Your task to perform on an android device: manage bookmarks in the chrome app Image 0: 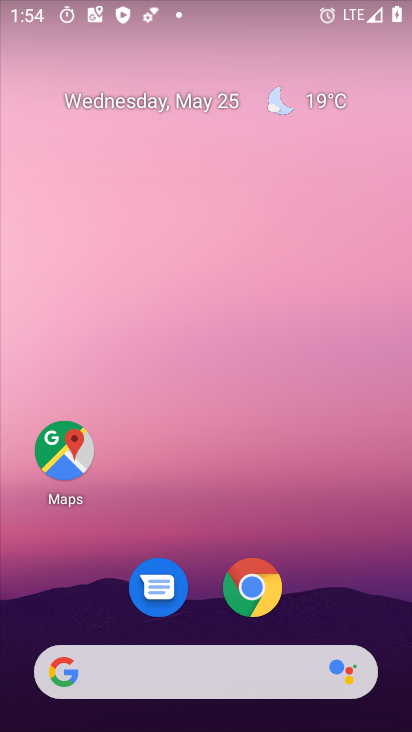
Step 0: click (248, 586)
Your task to perform on an android device: manage bookmarks in the chrome app Image 1: 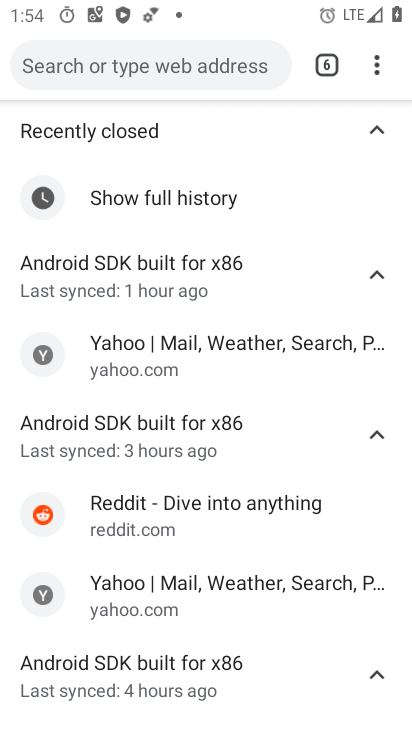
Step 1: click (376, 68)
Your task to perform on an android device: manage bookmarks in the chrome app Image 2: 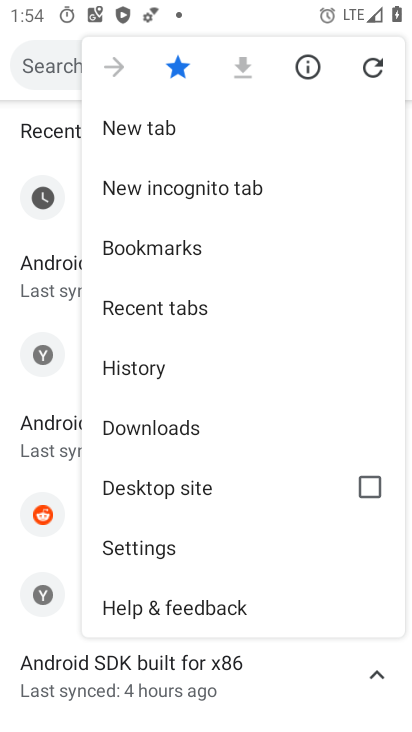
Step 2: click (154, 248)
Your task to perform on an android device: manage bookmarks in the chrome app Image 3: 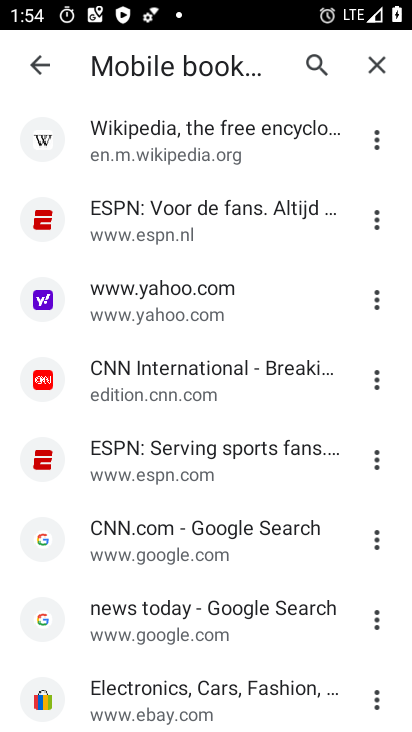
Step 3: click (377, 220)
Your task to perform on an android device: manage bookmarks in the chrome app Image 4: 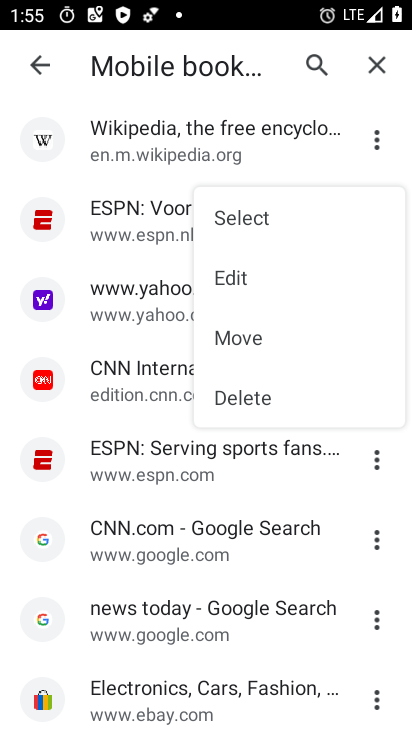
Step 4: click (235, 273)
Your task to perform on an android device: manage bookmarks in the chrome app Image 5: 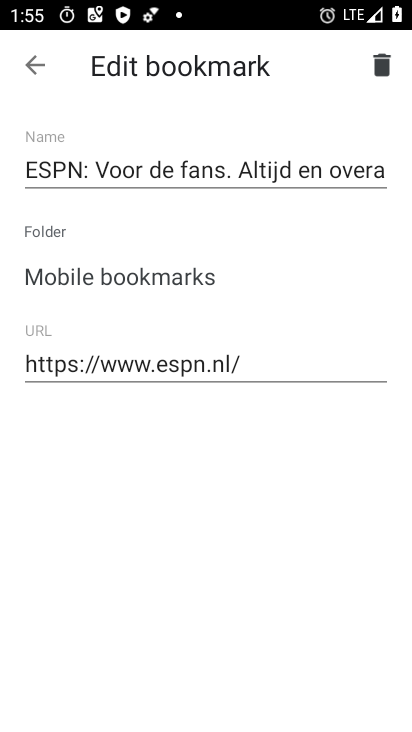
Step 5: click (203, 170)
Your task to perform on an android device: manage bookmarks in the chrome app Image 6: 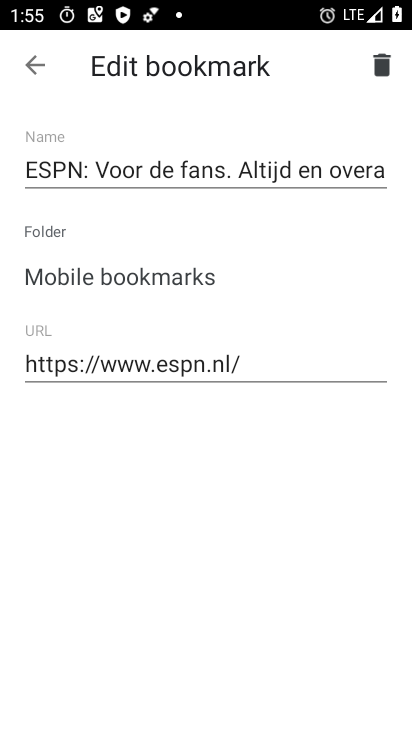
Step 6: click (203, 170)
Your task to perform on an android device: manage bookmarks in the chrome app Image 7: 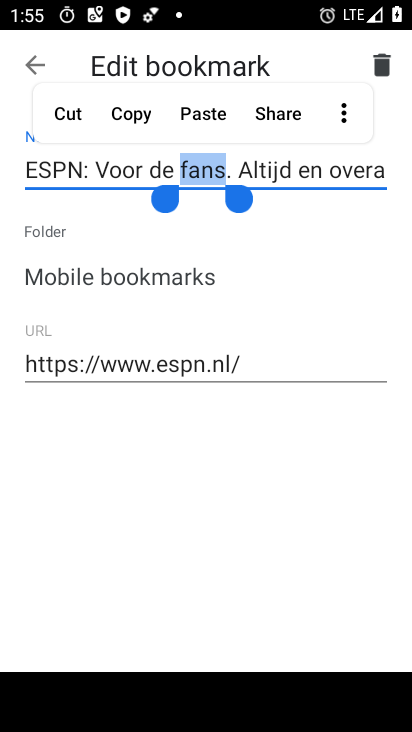
Step 7: drag from (166, 190) to (88, 178)
Your task to perform on an android device: manage bookmarks in the chrome app Image 8: 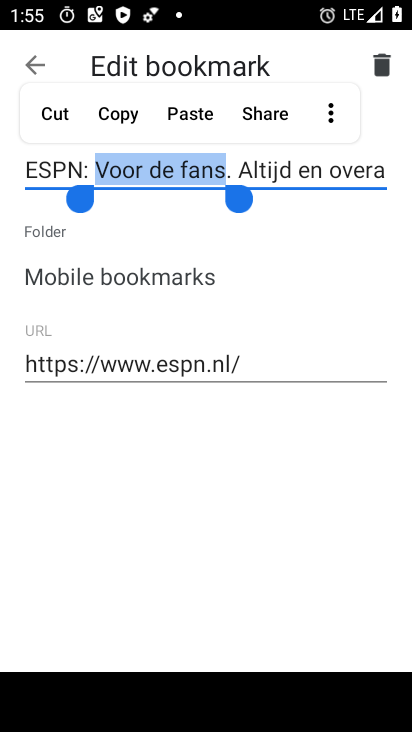
Step 8: click (51, 109)
Your task to perform on an android device: manage bookmarks in the chrome app Image 9: 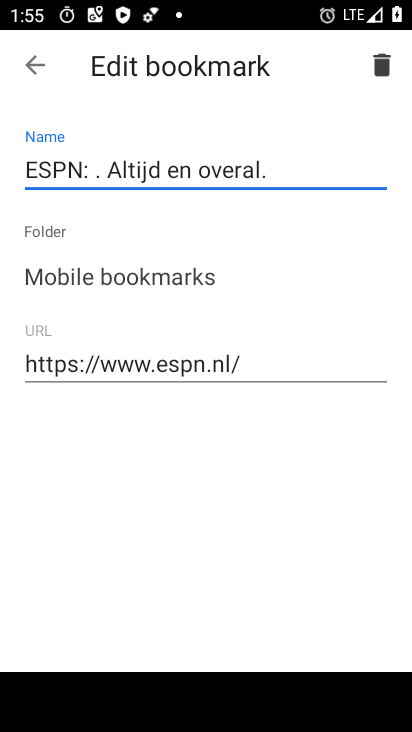
Step 9: click (31, 62)
Your task to perform on an android device: manage bookmarks in the chrome app Image 10: 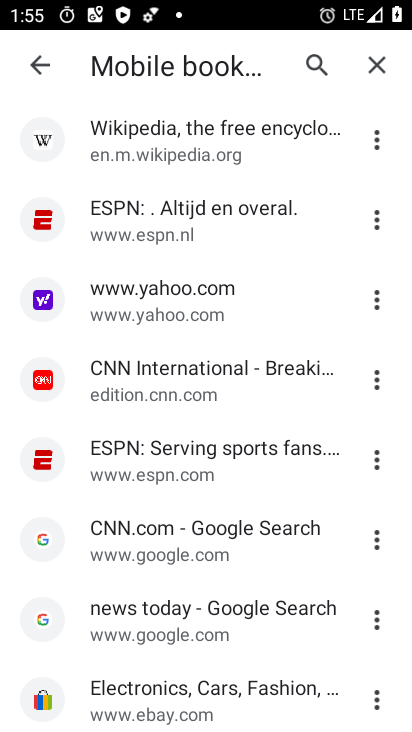
Step 10: task complete